Your task to perform on an android device: Open Google Chrome Image 0: 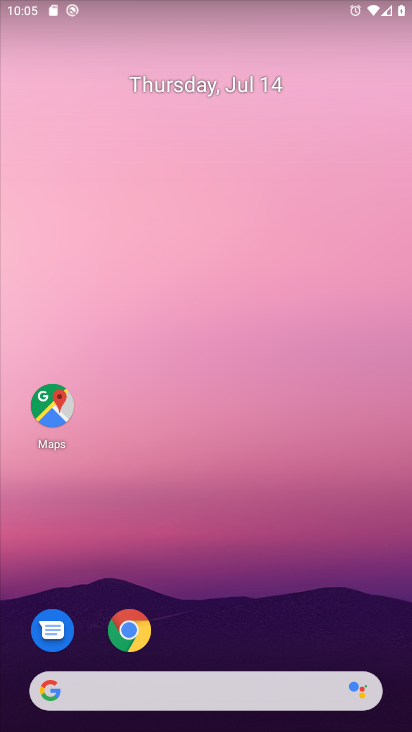
Step 0: drag from (175, 628) to (247, 160)
Your task to perform on an android device: Open Google Chrome Image 1: 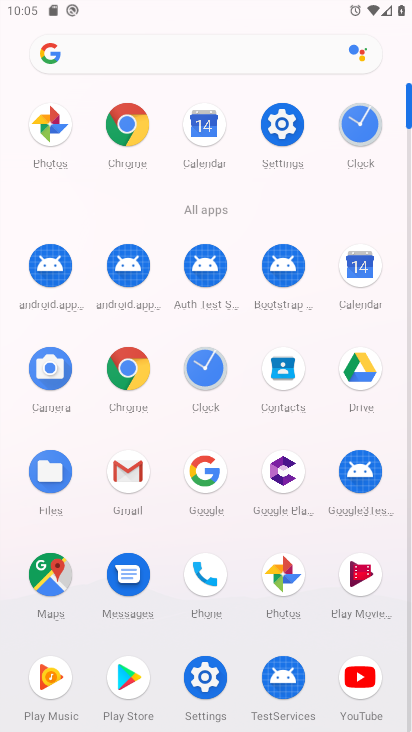
Step 1: drag from (261, 606) to (280, 307)
Your task to perform on an android device: Open Google Chrome Image 2: 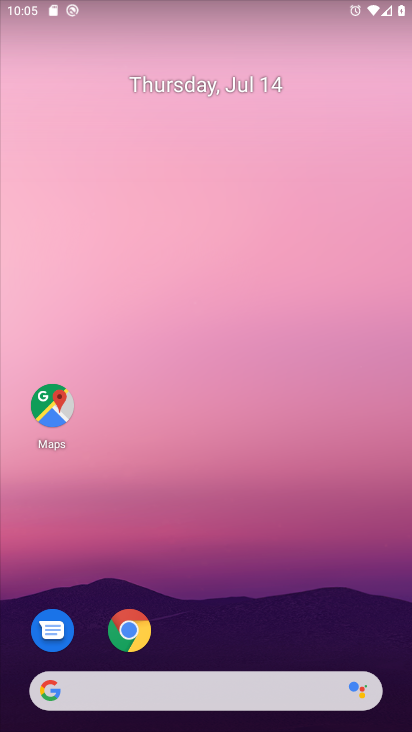
Step 2: click (123, 629)
Your task to perform on an android device: Open Google Chrome Image 3: 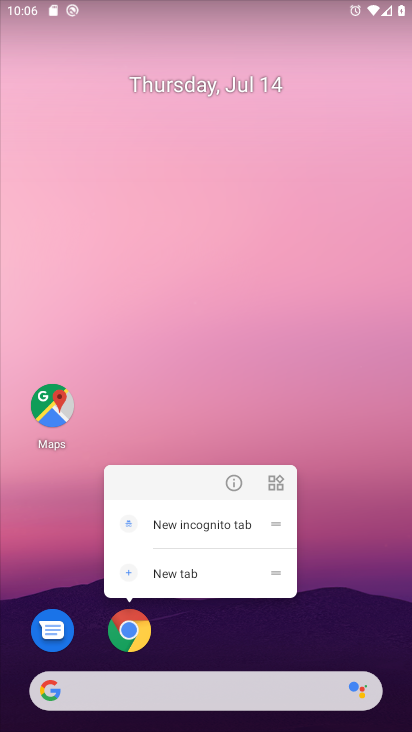
Step 3: click (231, 487)
Your task to perform on an android device: Open Google Chrome Image 4: 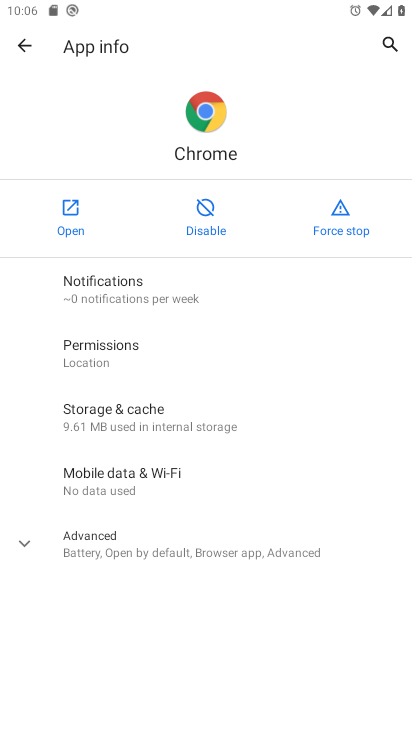
Step 4: click (72, 226)
Your task to perform on an android device: Open Google Chrome Image 5: 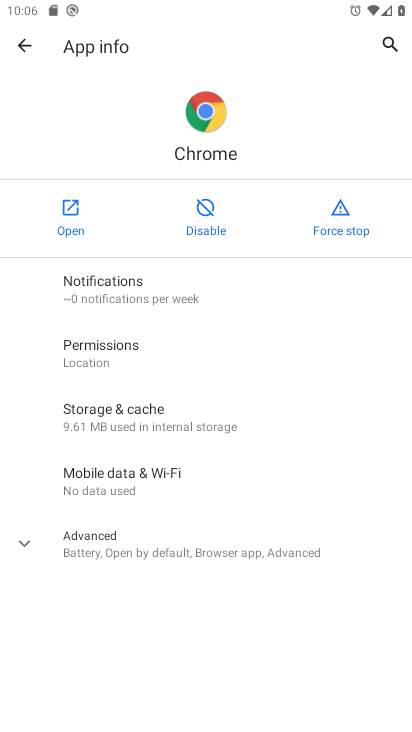
Step 5: click (72, 226)
Your task to perform on an android device: Open Google Chrome Image 6: 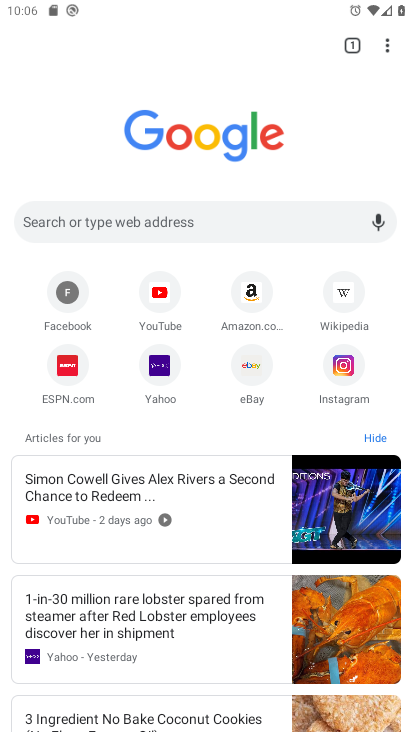
Step 6: task complete